Your task to perform on an android device: Go to Google Image 0: 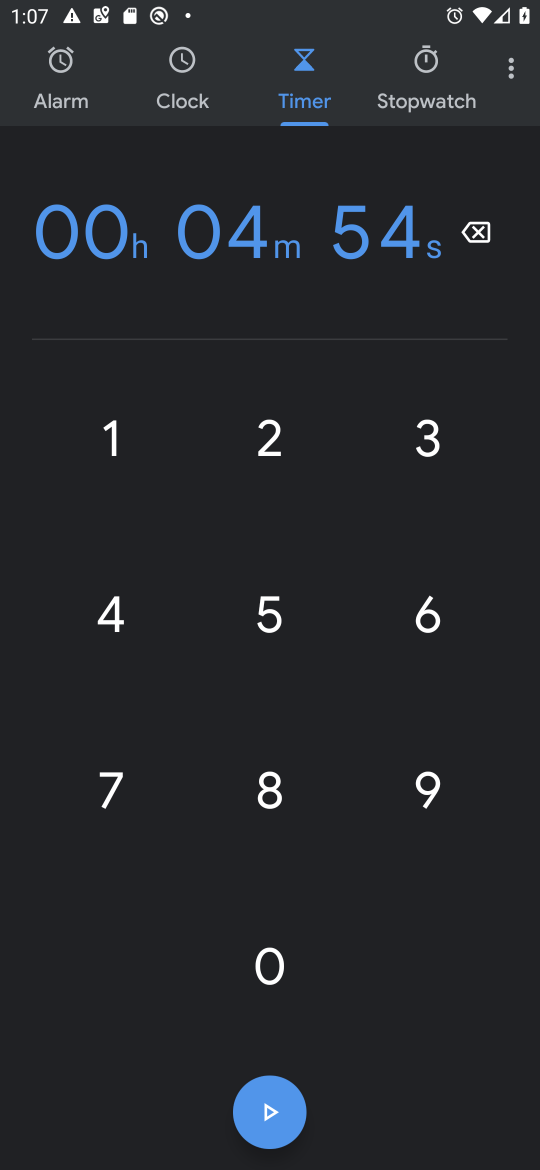
Step 0: press home button
Your task to perform on an android device: Go to Google Image 1: 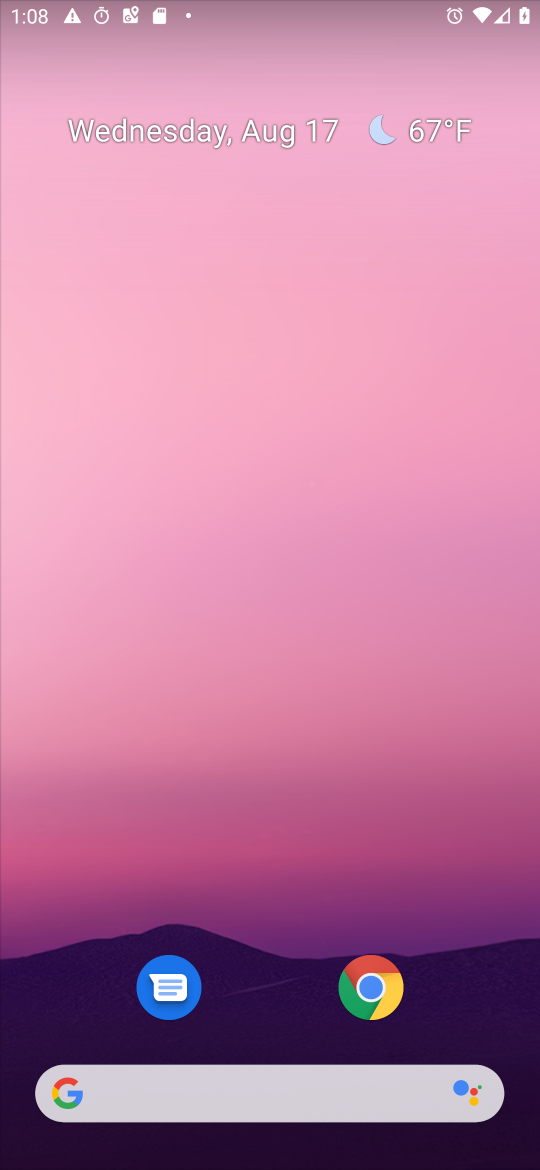
Step 1: click (171, 1106)
Your task to perform on an android device: Go to Google Image 2: 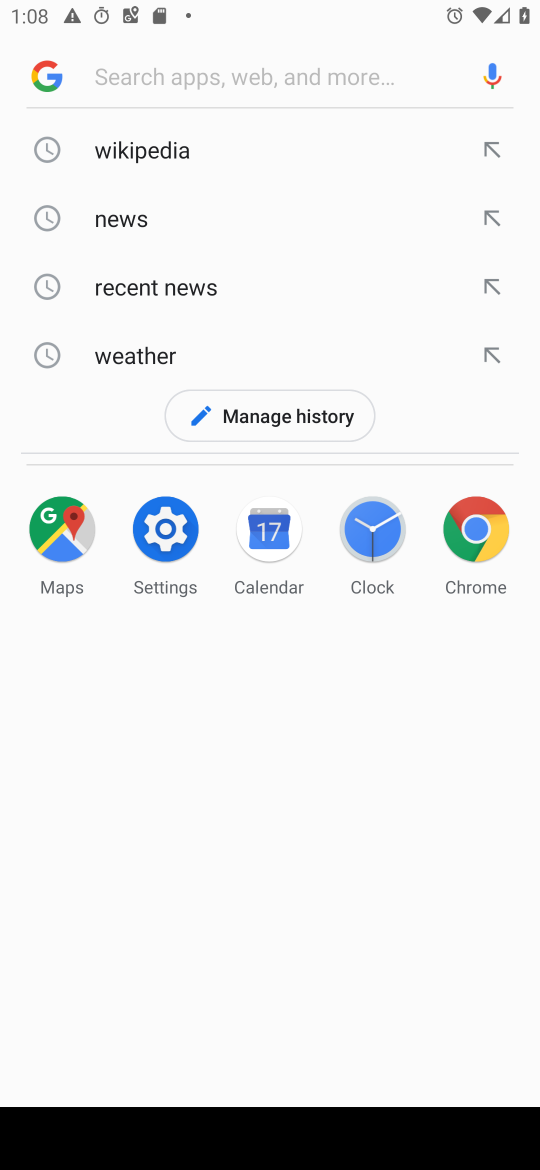
Step 2: task complete